Your task to perform on an android device: toggle notification dots Image 0: 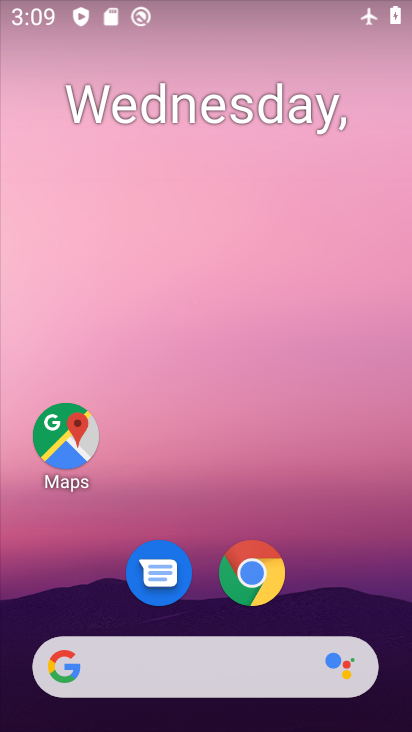
Step 0: drag from (185, 572) to (250, 205)
Your task to perform on an android device: toggle notification dots Image 1: 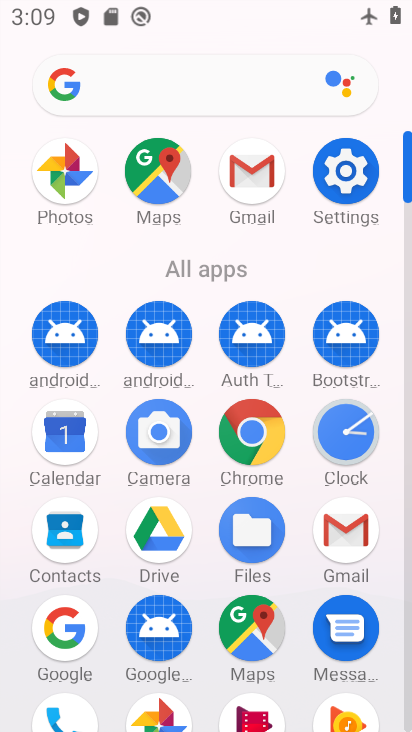
Step 1: click (345, 179)
Your task to perform on an android device: toggle notification dots Image 2: 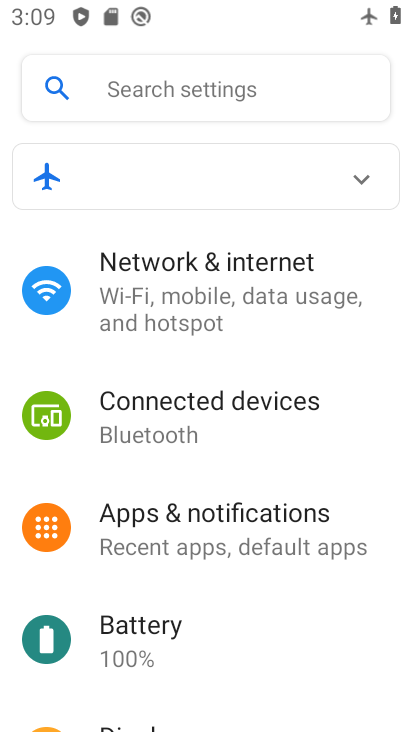
Step 2: click (187, 529)
Your task to perform on an android device: toggle notification dots Image 3: 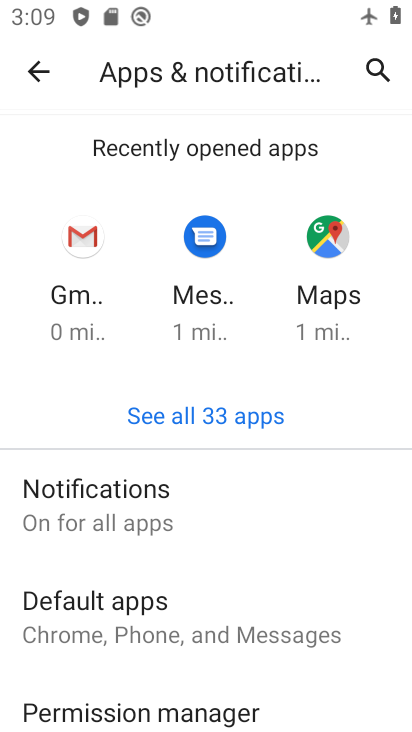
Step 3: click (136, 509)
Your task to perform on an android device: toggle notification dots Image 4: 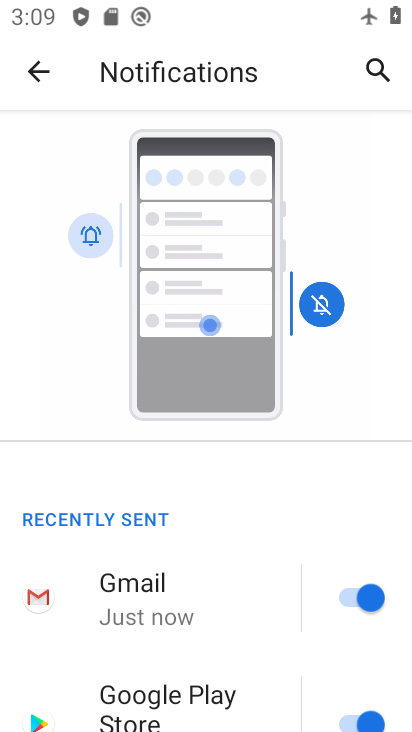
Step 4: click (171, 349)
Your task to perform on an android device: toggle notification dots Image 5: 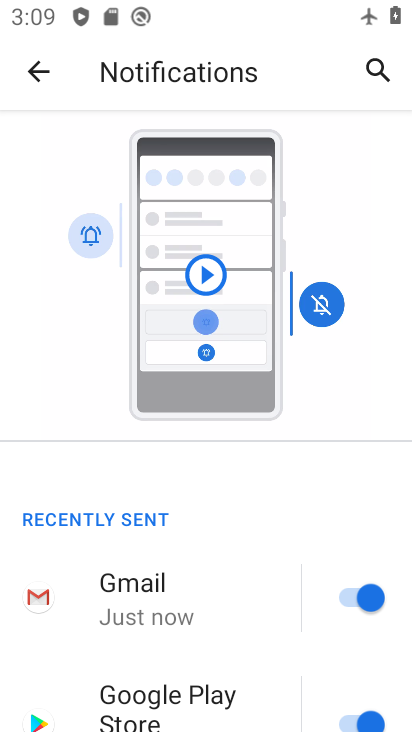
Step 5: drag from (85, 629) to (112, 363)
Your task to perform on an android device: toggle notification dots Image 6: 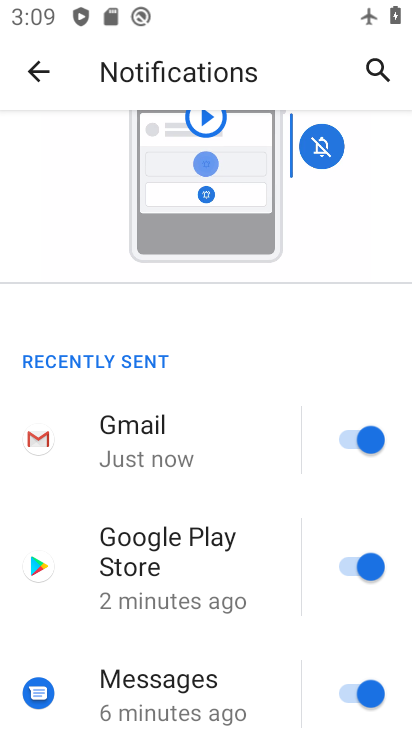
Step 6: drag from (124, 696) to (172, 347)
Your task to perform on an android device: toggle notification dots Image 7: 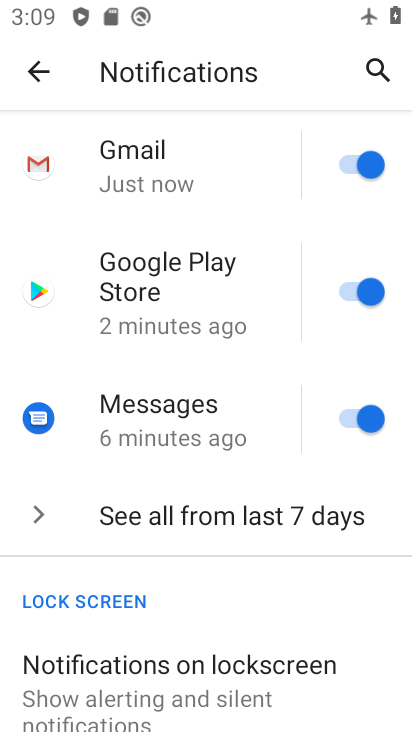
Step 7: drag from (139, 712) to (176, 306)
Your task to perform on an android device: toggle notification dots Image 8: 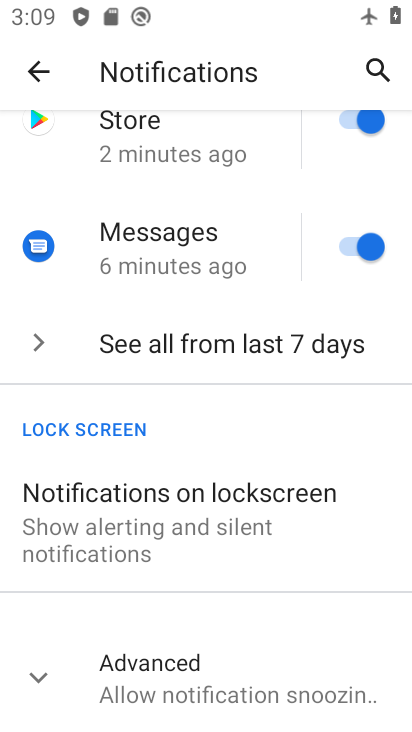
Step 8: click (150, 662)
Your task to perform on an android device: toggle notification dots Image 9: 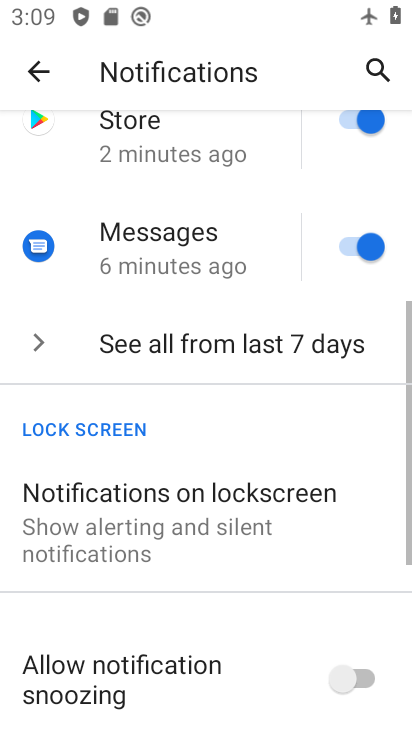
Step 9: drag from (145, 719) to (221, 353)
Your task to perform on an android device: toggle notification dots Image 10: 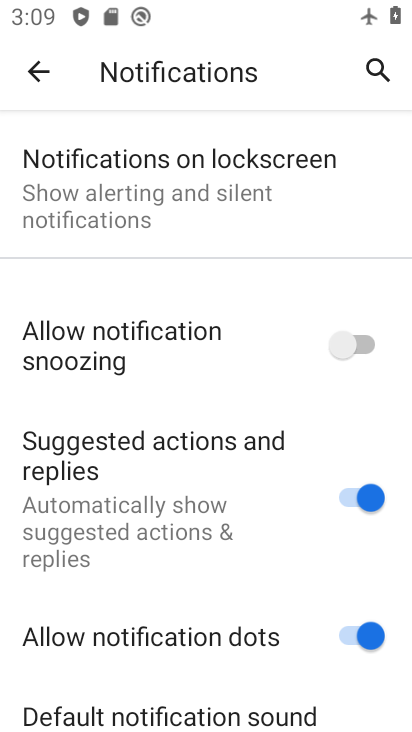
Step 10: click (359, 639)
Your task to perform on an android device: toggle notification dots Image 11: 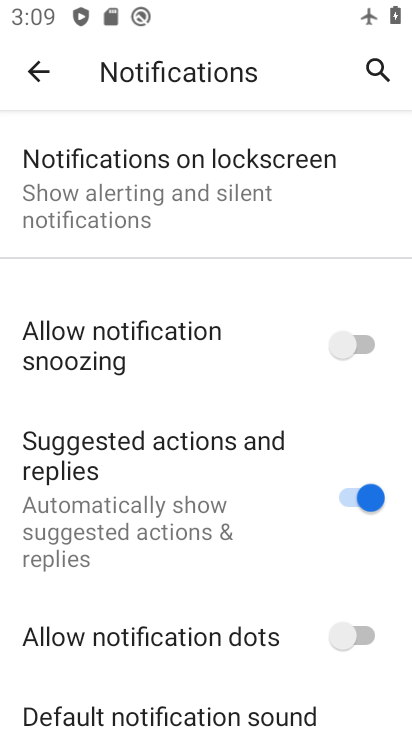
Step 11: task complete